Your task to perform on an android device: Open battery settings Image 0: 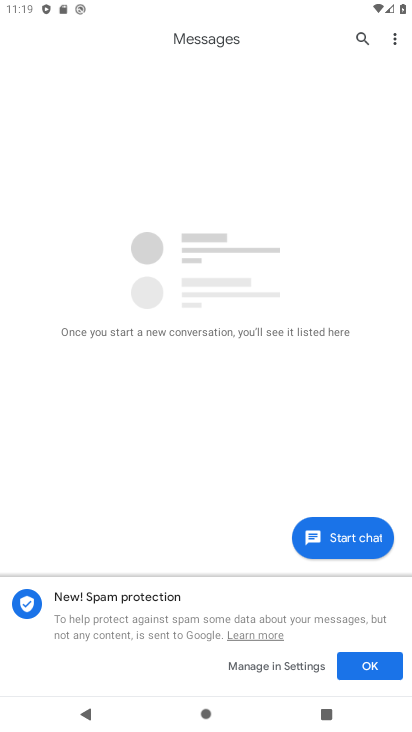
Step 0: press home button
Your task to perform on an android device: Open battery settings Image 1: 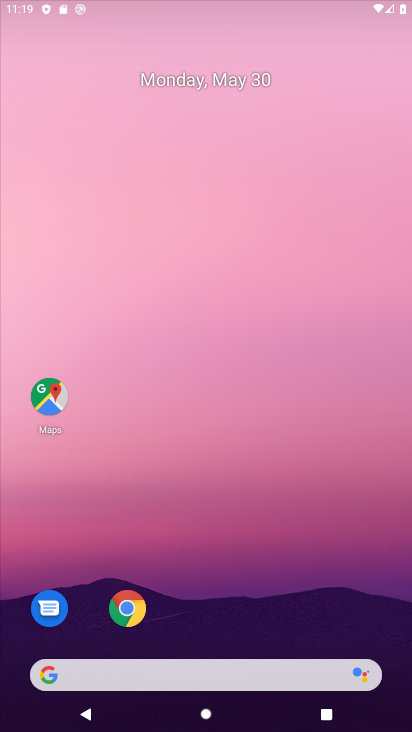
Step 1: drag from (194, 618) to (238, 28)
Your task to perform on an android device: Open battery settings Image 2: 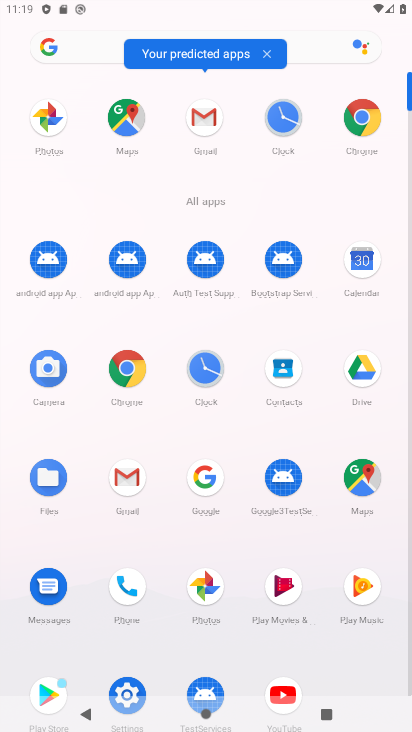
Step 2: click (130, 682)
Your task to perform on an android device: Open battery settings Image 3: 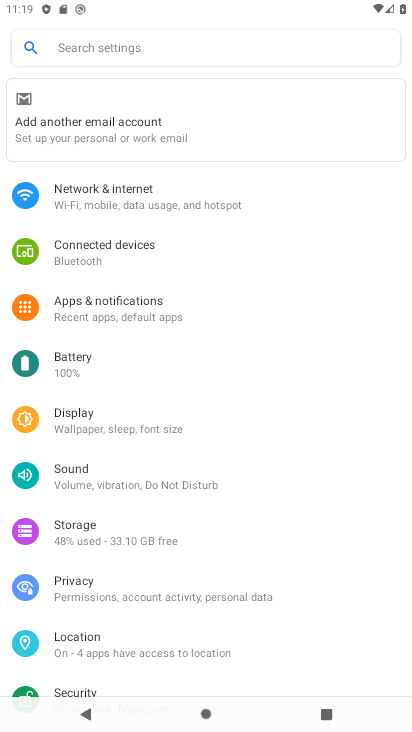
Step 3: click (66, 358)
Your task to perform on an android device: Open battery settings Image 4: 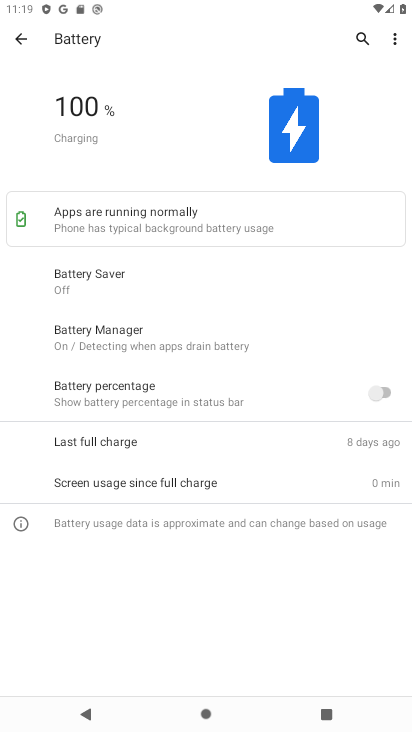
Step 4: task complete